Your task to perform on an android device: turn on notifications settings in the gmail app Image 0: 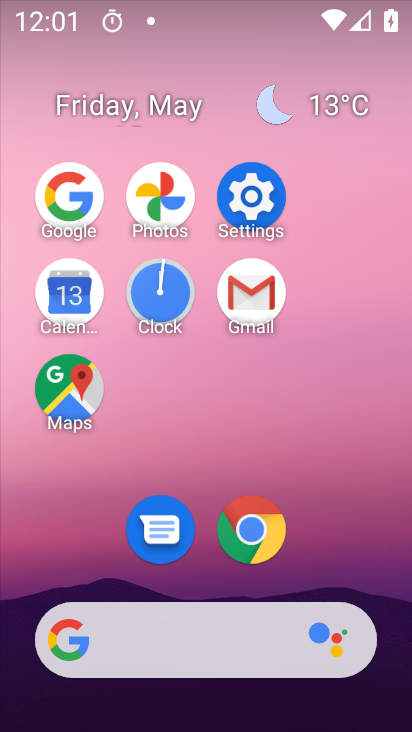
Step 0: click (239, 304)
Your task to perform on an android device: turn on notifications settings in the gmail app Image 1: 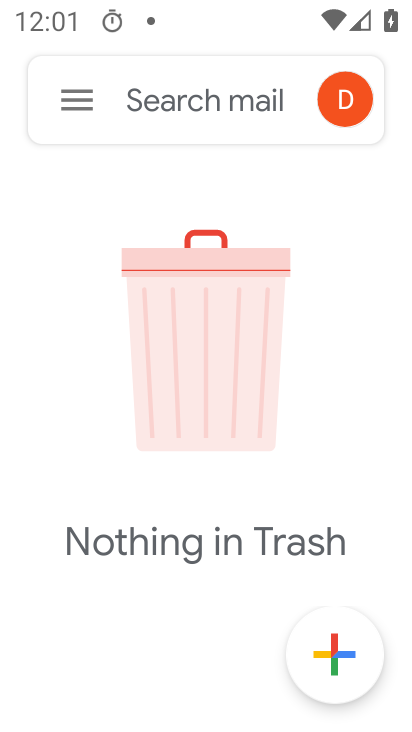
Step 1: click (66, 79)
Your task to perform on an android device: turn on notifications settings in the gmail app Image 2: 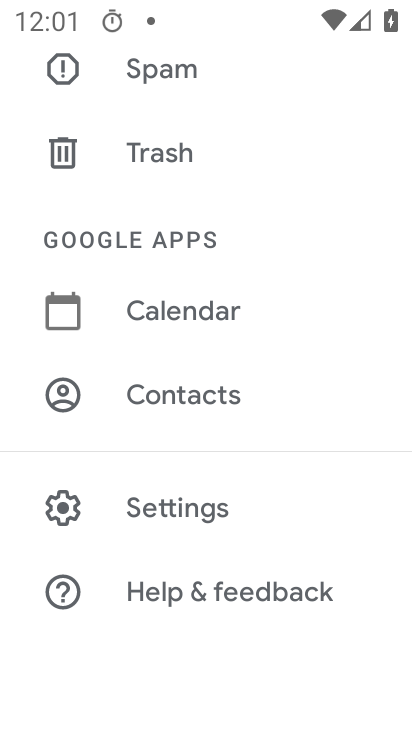
Step 2: click (164, 501)
Your task to perform on an android device: turn on notifications settings in the gmail app Image 3: 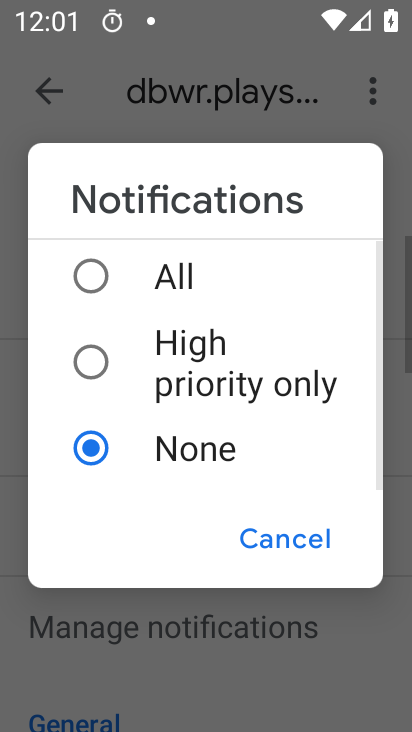
Step 3: click (126, 290)
Your task to perform on an android device: turn on notifications settings in the gmail app Image 4: 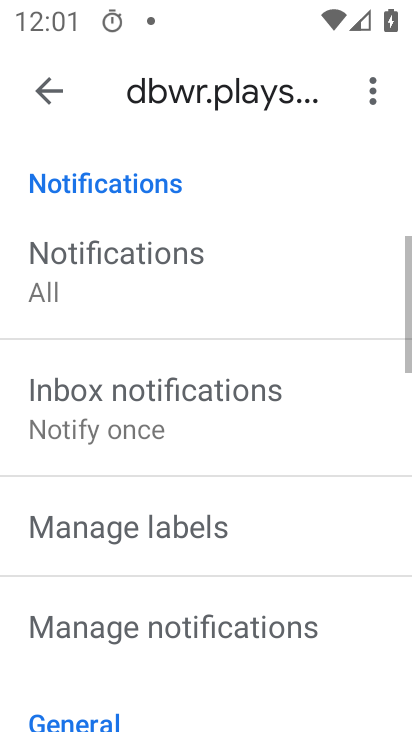
Step 4: task complete